Your task to perform on an android device: Show me productivity apps on the Play Store Image 0: 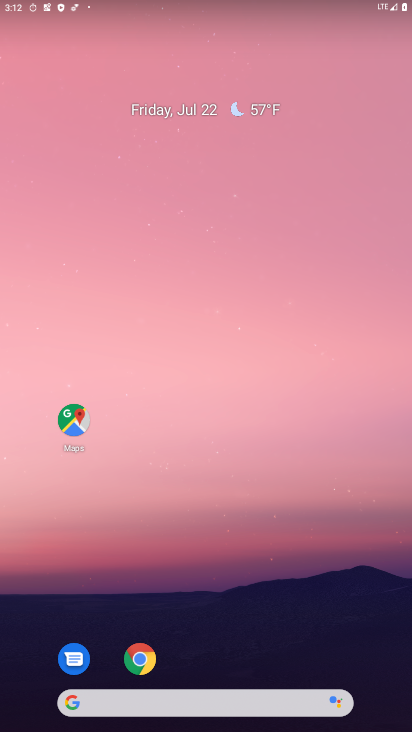
Step 0: drag from (238, 636) to (225, 197)
Your task to perform on an android device: Show me productivity apps on the Play Store Image 1: 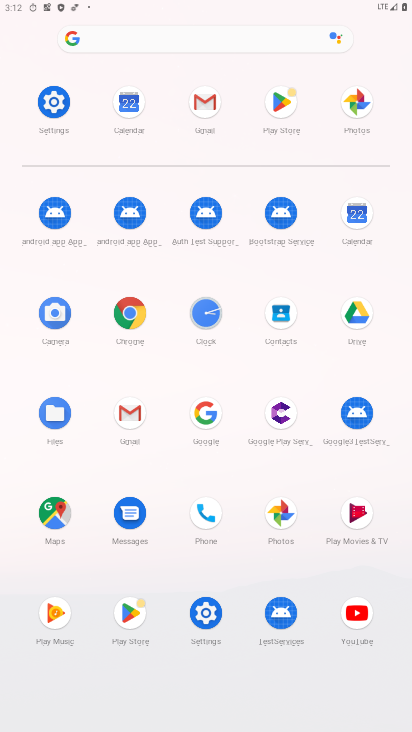
Step 1: click (114, 620)
Your task to perform on an android device: Show me productivity apps on the Play Store Image 2: 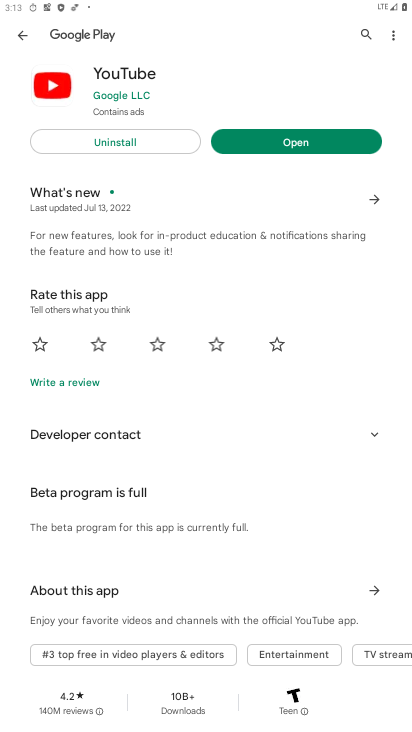
Step 2: click (27, 41)
Your task to perform on an android device: Show me productivity apps on the Play Store Image 3: 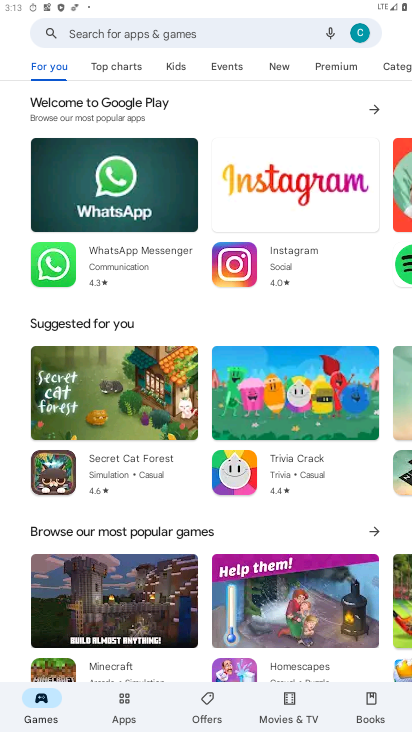
Step 3: click (113, 720)
Your task to perform on an android device: Show me productivity apps on the Play Store Image 4: 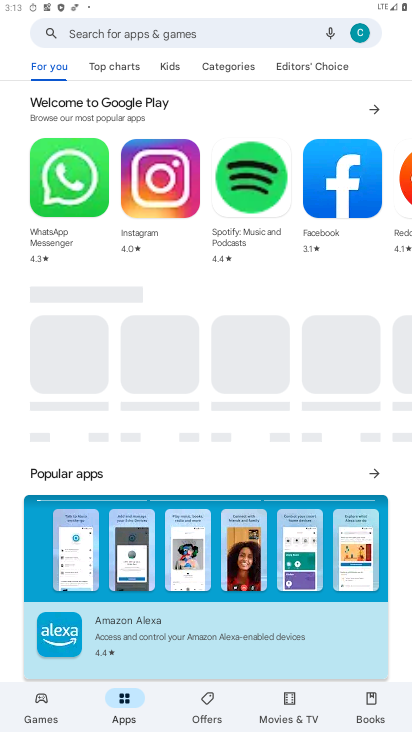
Step 4: click (242, 73)
Your task to perform on an android device: Show me productivity apps on the Play Store Image 5: 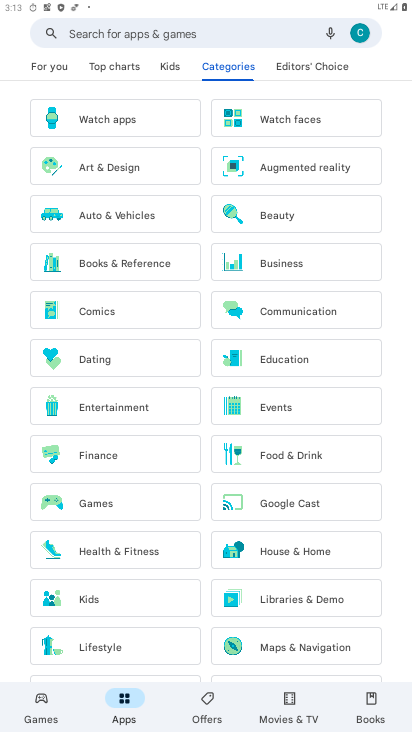
Step 5: drag from (202, 576) to (211, 322)
Your task to perform on an android device: Show me productivity apps on the Play Store Image 6: 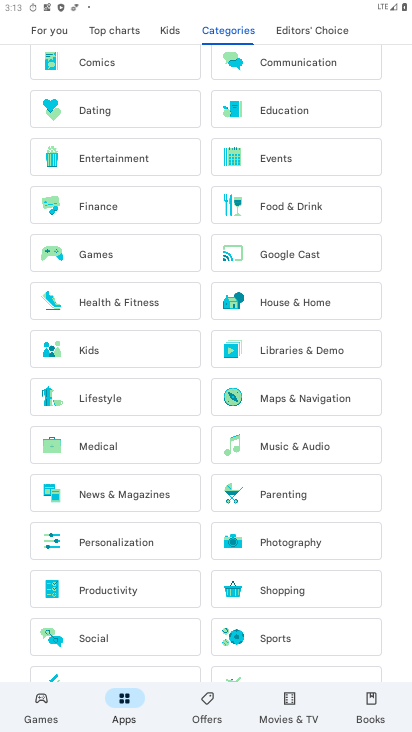
Step 6: click (155, 582)
Your task to perform on an android device: Show me productivity apps on the Play Store Image 7: 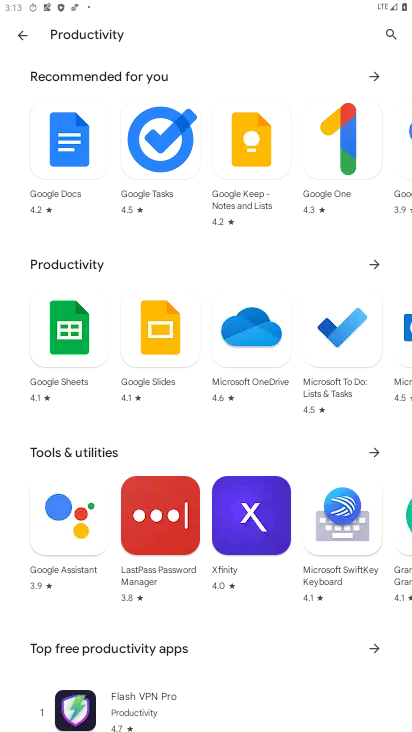
Step 7: task complete